Your task to perform on an android device: What is the news today? Image 0: 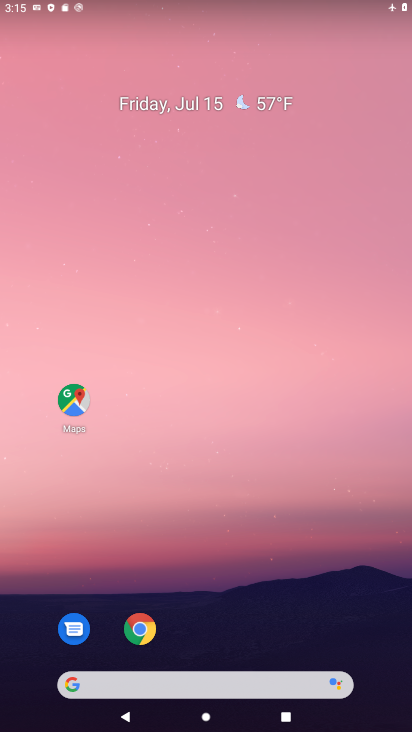
Step 0: drag from (230, 545) to (163, 92)
Your task to perform on an android device: What is the news today? Image 1: 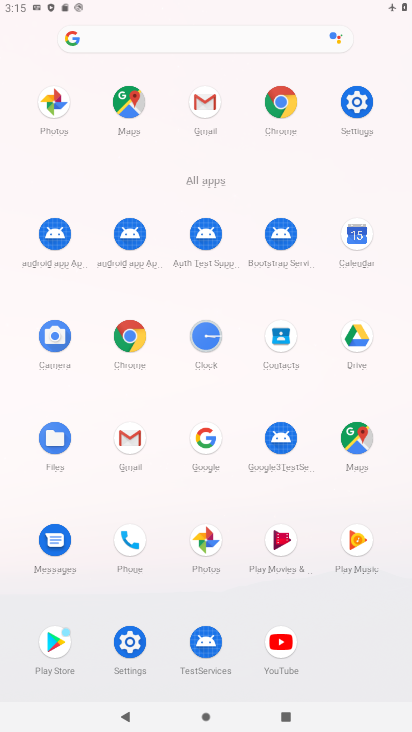
Step 1: click (271, 99)
Your task to perform on an android device: What is the news today? Image 2: 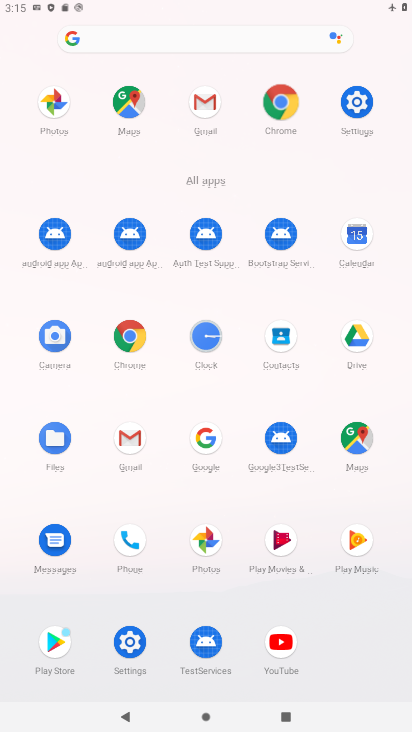
Step 2: click (275, 98)
Your task to perform on an android device: What is the news today? Image 3: 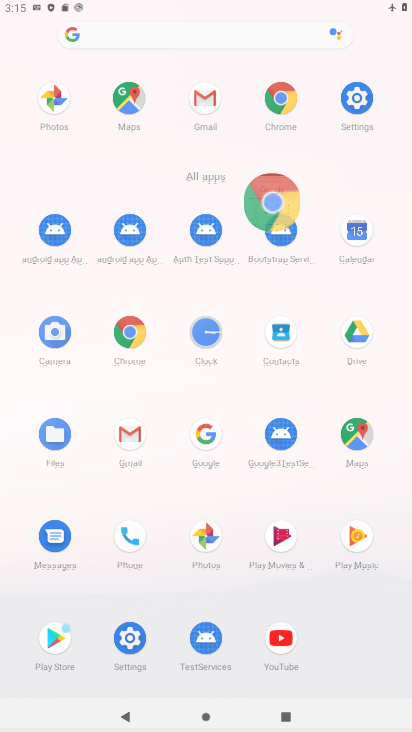
Step 3: click (276, 99)
Your task to perform on an android device: What is the news today? Image 4: 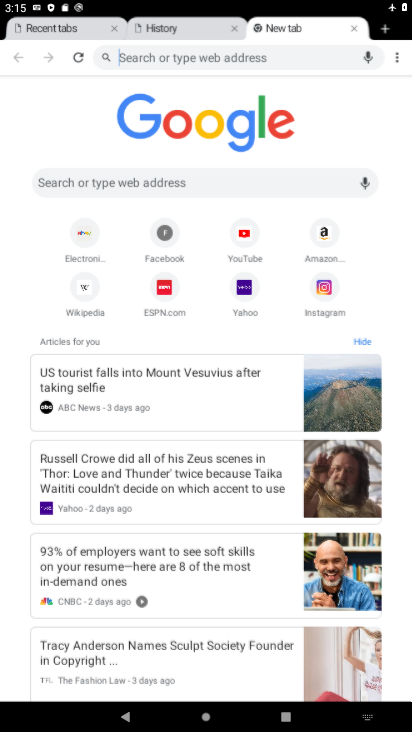
Step 4: click (128, 58)
Your task to perform on an android device: What is the news today? Image 5: 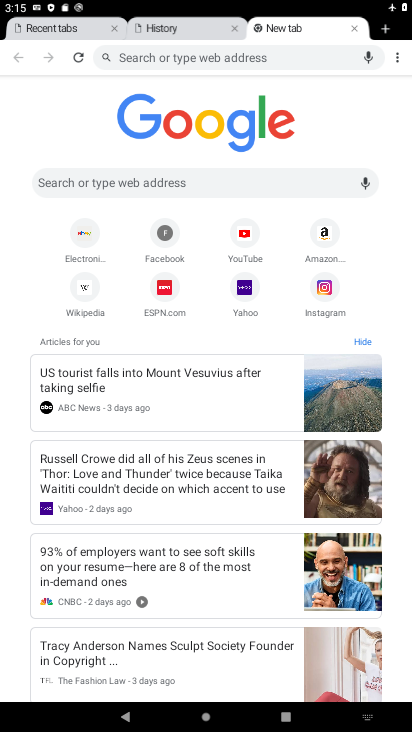
Step 5: task complete